Your task to perform on an android device: turn off translation in the chrome app Image 0: 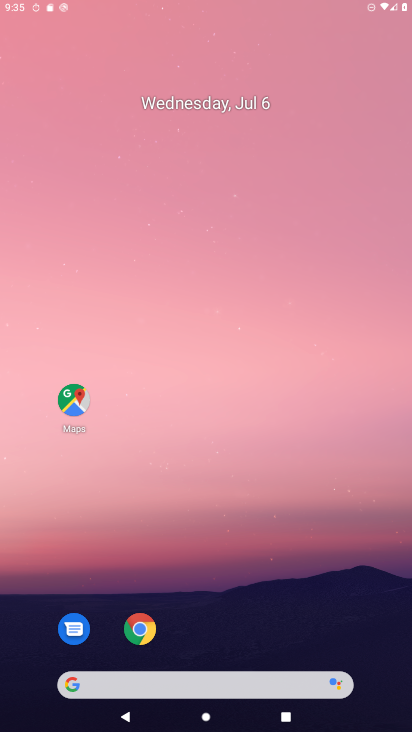
Step 0: click (225, 103)
Your task to perform on an android device: turn off translation in the chrome app Image 1: 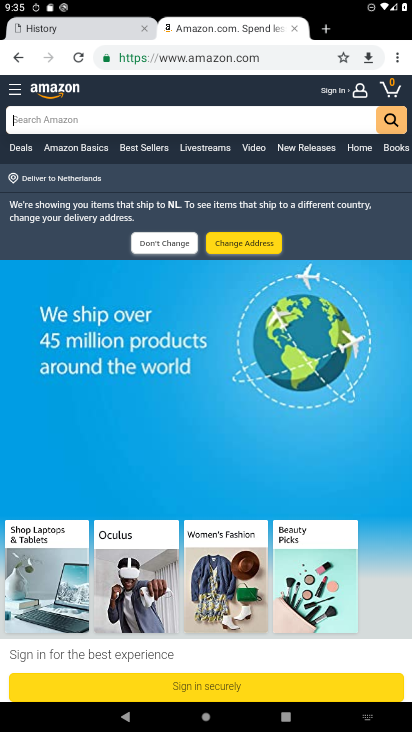
Step 1: press home button
Your task to perform on an android device: turn off translation in the chrome app Image 2: 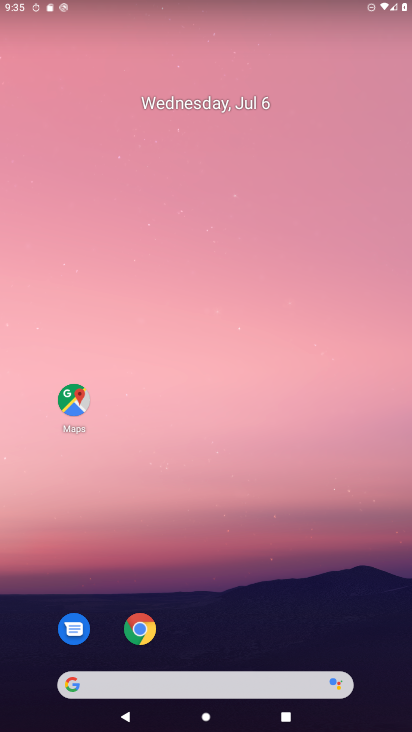
Step 2: click (140, 627)
Your task to perform on an android device: turn off translation in the chrome app Image 3: 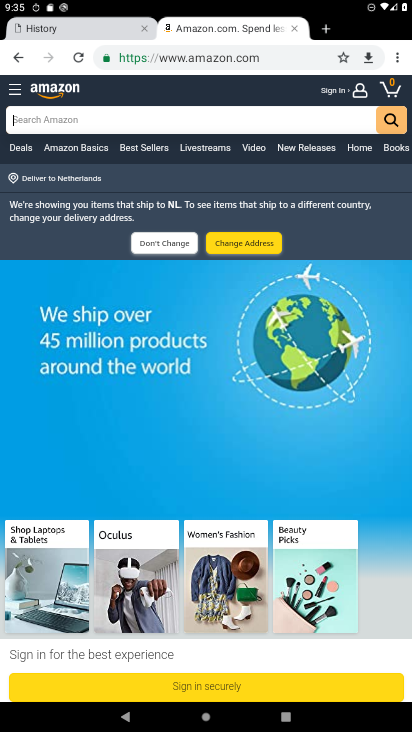
Step 3: click (397, 59)
Your task to perform on an android device: turn off translation in the chrome app Image 4: 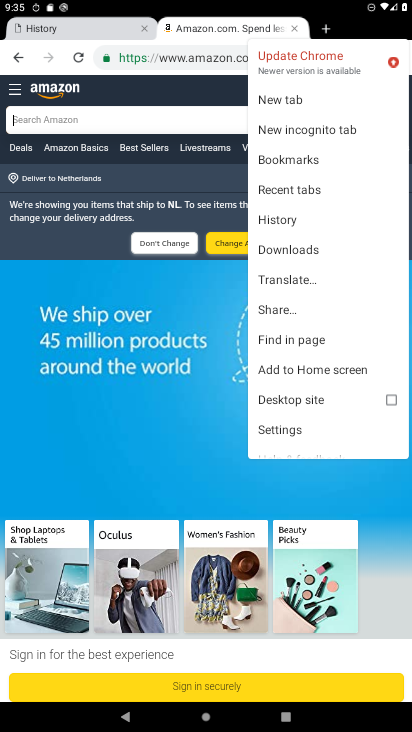
Step 4: click (266, 423)
Your task to perform on an android device: turn off translation in the chrome app Image 5: 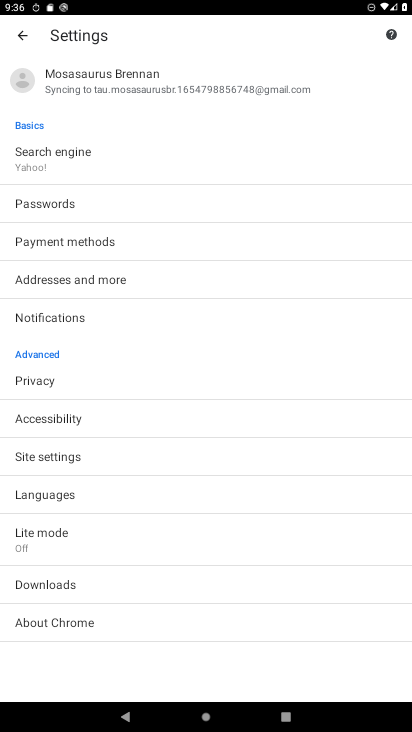
Step 5: click (44, 456)
Your task to perform on an android device: turn off translation in the chrome app Image 6: 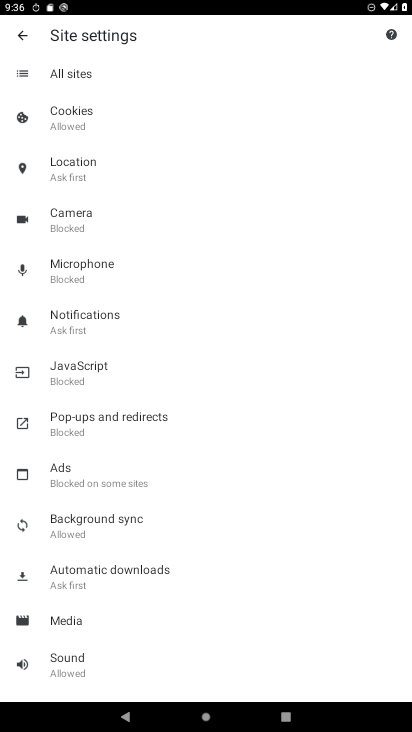
Step 6: click (58, 321)
Your task to perform on an android device: turn off translation in the chrome app Image 7: 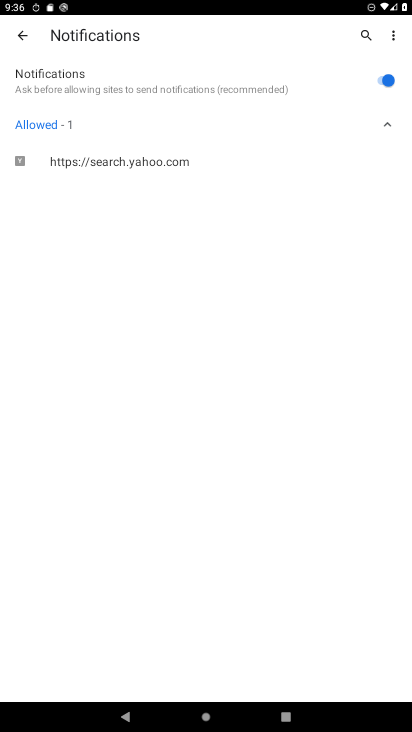
Step 7: click (381, 80)
Your task to perform on an android device: turn off translation in the chrome app Image 8: 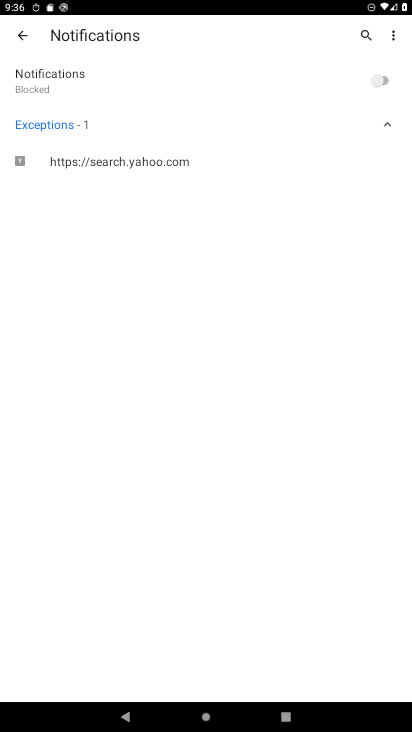
Step 8: task complete